Your task to perform on an android device: uninstall "Airtel Thanks" Image 0: 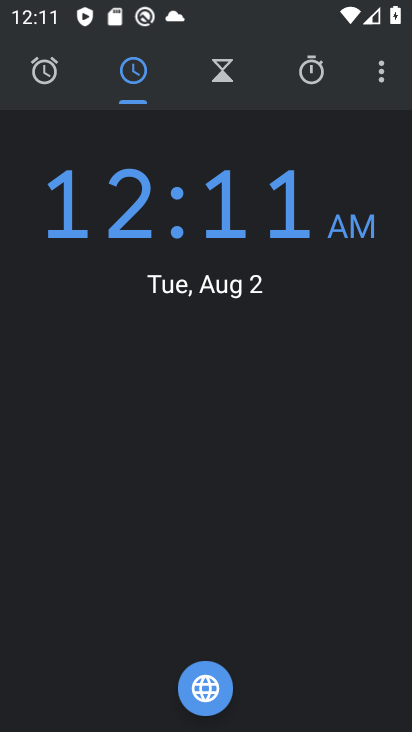
Step 0: press home button
Your task to perform on an android device: uninstall "Airtel Thanks" Image 1: 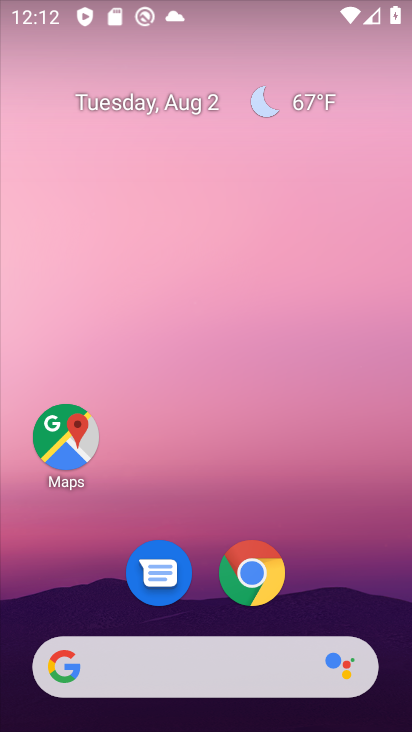
Step 1: drag from (187, 649) to (234, 77)
Your task to perform on an android device: uninstall "Airtel Thanks" Image 2: 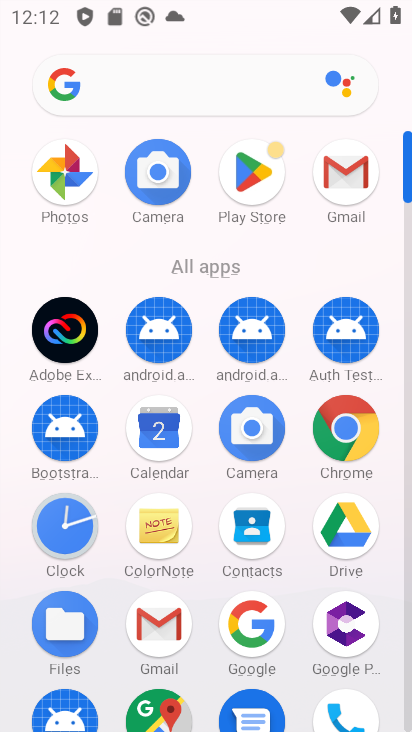
Step 2: click (273, 179)
Your task to perform on an android device: uninstall "Airtel Thanks" Image 3: 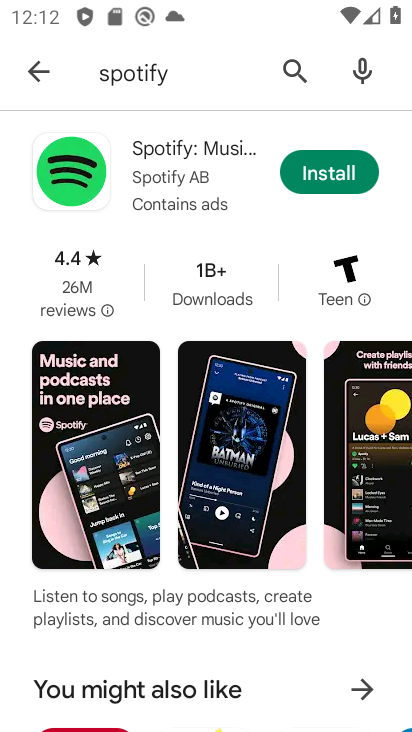
Step 3: click (289, 71)
Your task to perform on an android device: uninstall "Airtel Thanks" Image 4: 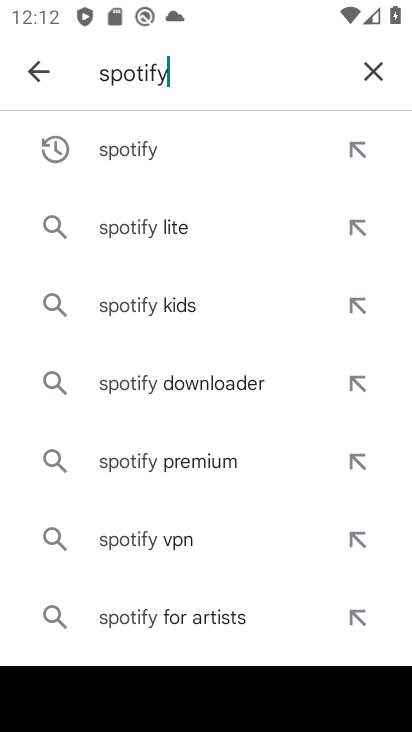
Step 4: click (377, 69)
Your task to perform on an android device: uninstall "Airtel Thanks" Image 5: 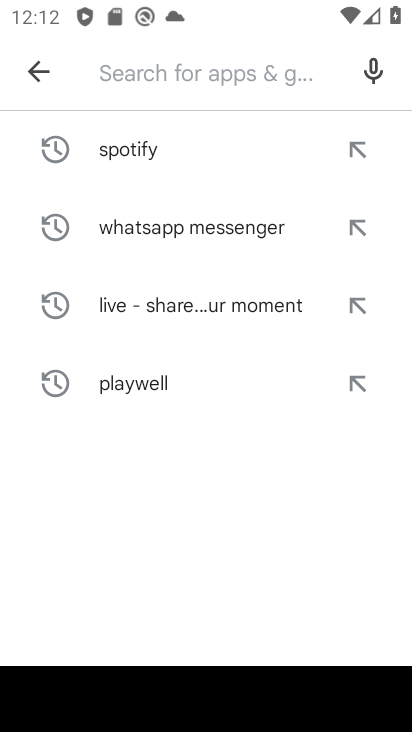
Step 5: type "airtel thanks"
Your task to perform on an android device: uninstall "Airtel Thanks" Image 6: 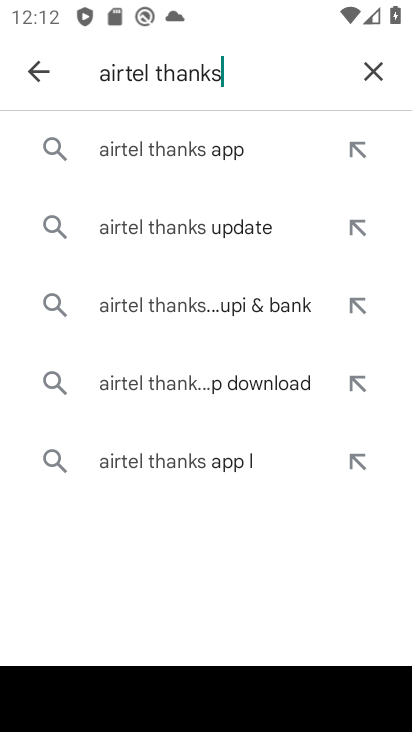
Step 6: click (218, 144)
Your task to perform on an android device: uninstall "Airtel Thanks" Image 7: 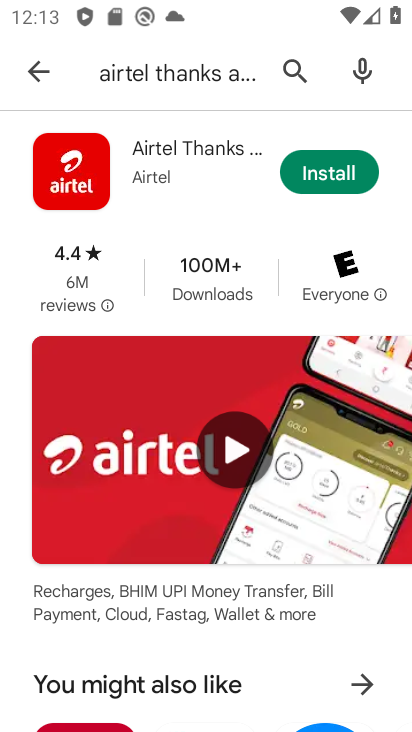
Step 7: task complete